Your task to perform on an android device: Open accessibility settings Image 0: 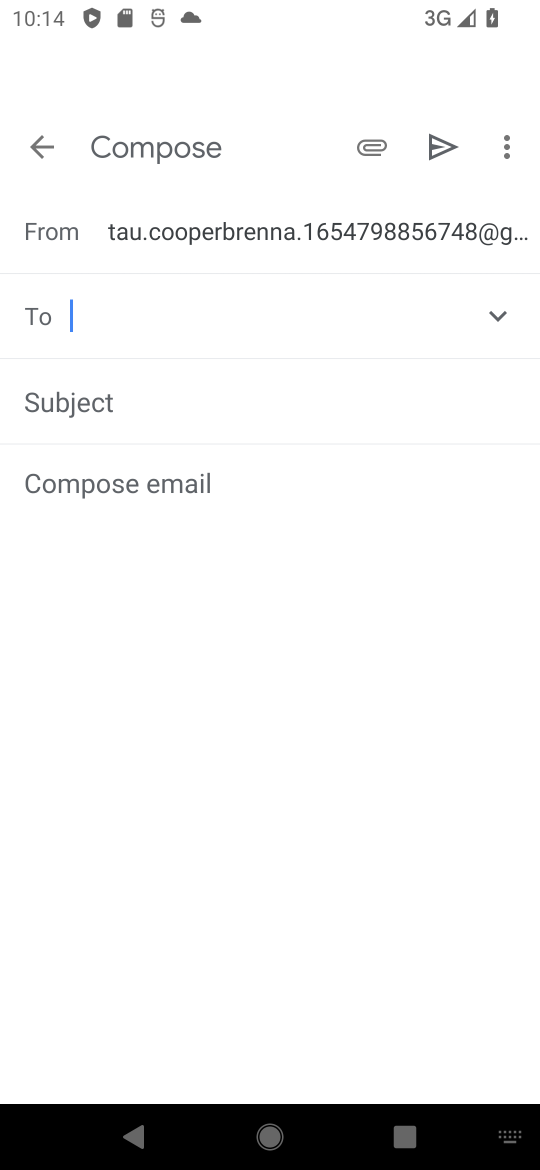
Step 0: press home button
Your task to perform on an android device: Open accessibility settings Image 1: 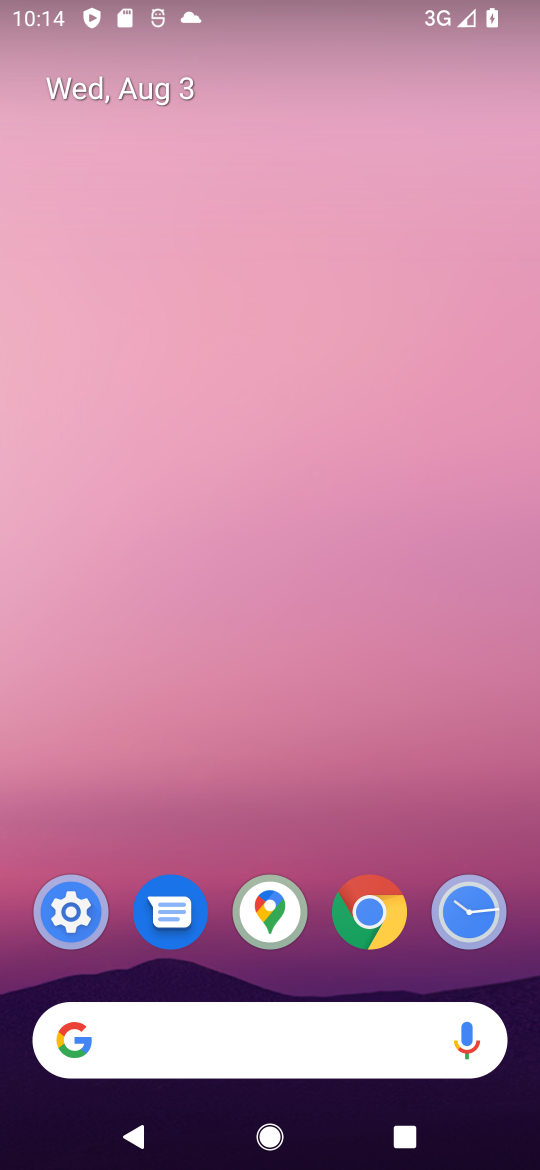
Step 1: drag from (394, 811) to (285, 203)
Your task to perform on an android device: Open accessibility settings Image 2: 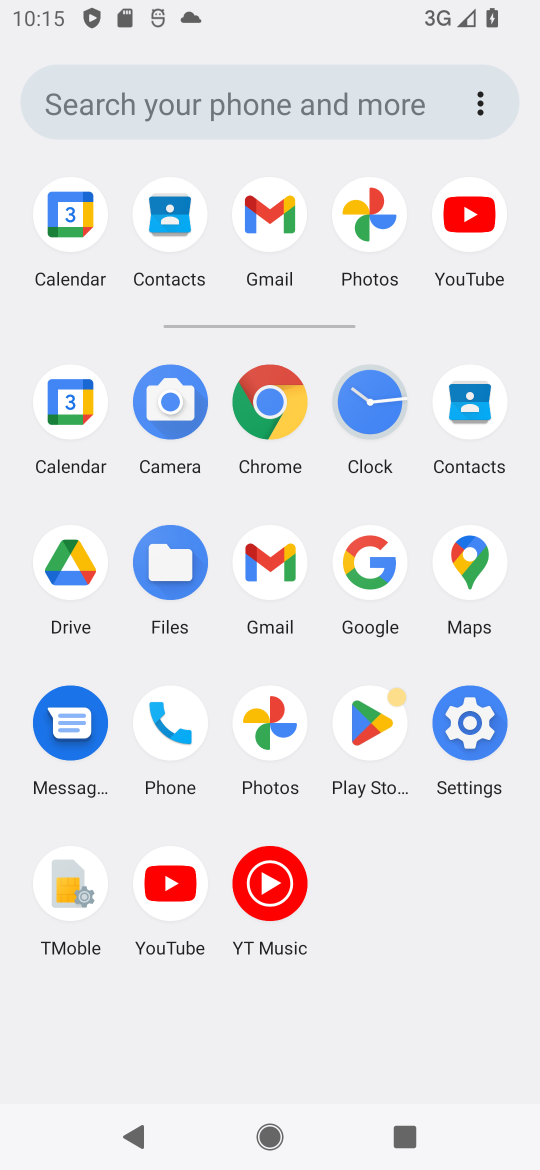
Step 2: click (474, 732)
Your task to perform on an android device: Open accessibility settings Image 3: 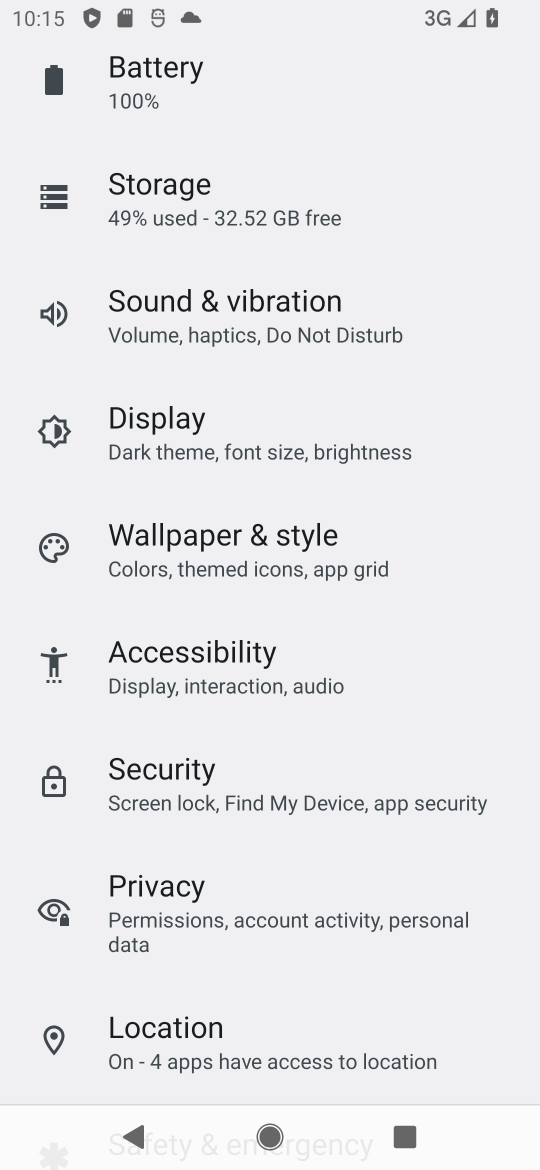
Step 3: click (270, 681)
Your task to perform on an android device: Open accessibility settings Image 4: 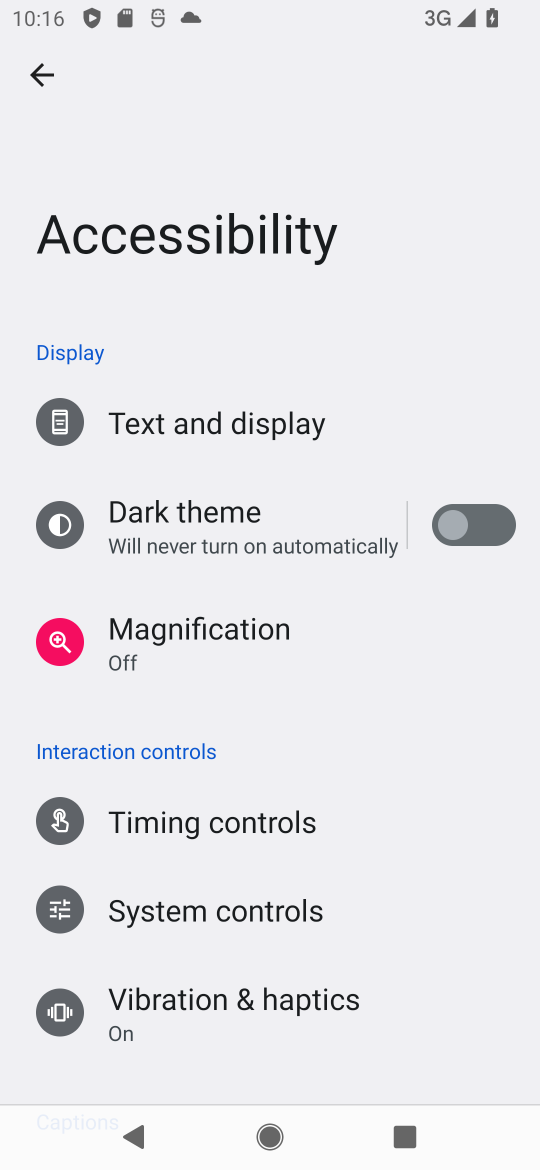
Step 4: task complete